Your task to perform on an android device: snooze an email in the gmail app Image 0: 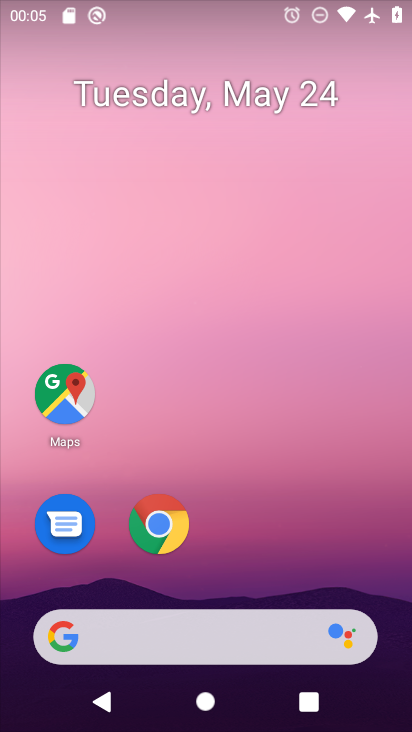
Step 0: drag from (246, 573) to (214, 225)
Your task to perform on an android device: snooze an email in the gmail app Image 1: 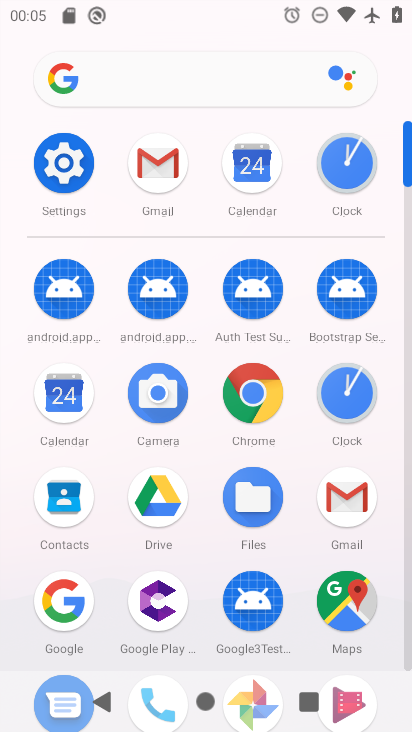
Step 1: click (167, 178)
Your task to perform on an android device: snooze an email in the gmail app Image 2: 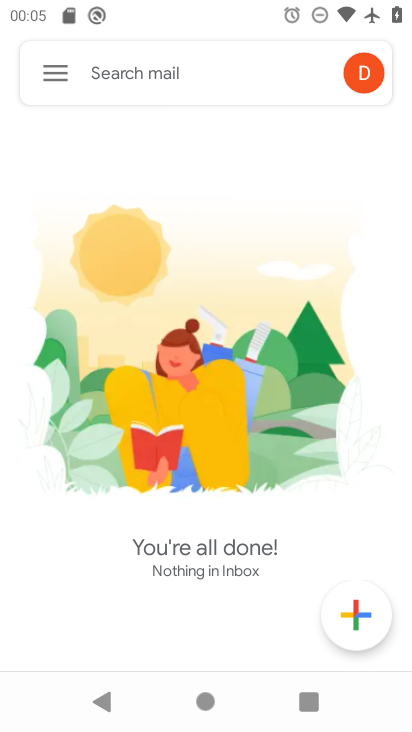
Step 2: click (43, 81)
Your task to perform on an android device: snooze an email in the gmail app Image 3: 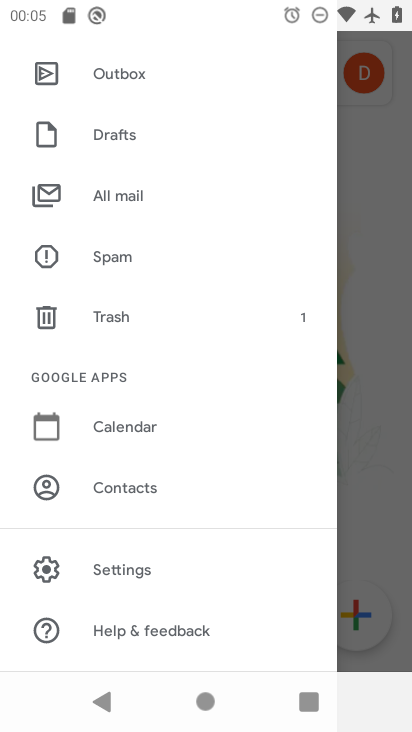
Step 3: click (125, 200)
Your task to perform on an android device: snooze an email in the gmail app Image 4: 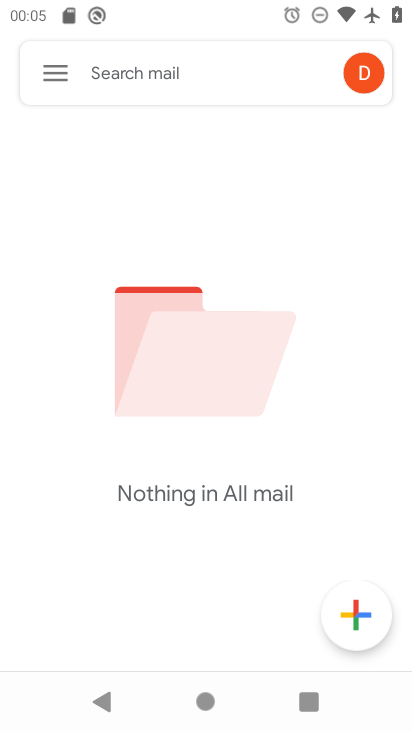
Step 4: task complete